Your task to perform on an android device: Open the phone app and click the voicemail tab. Image 0: 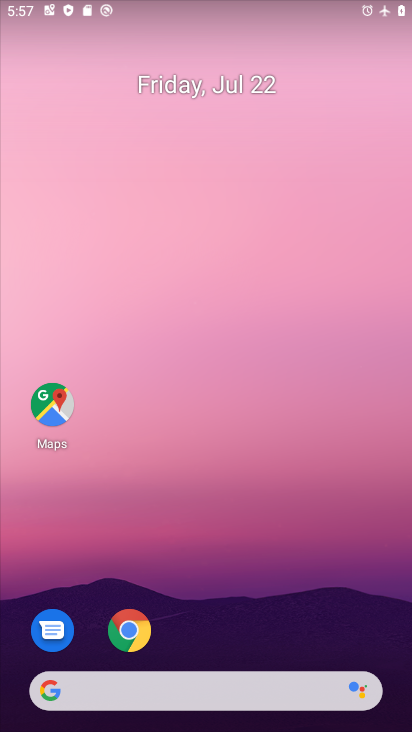
Step 0: drag from (214, 678) to (223, 142)
Your task to perform on an android device: Open the phone app and click the voicemail tab. Image 1: 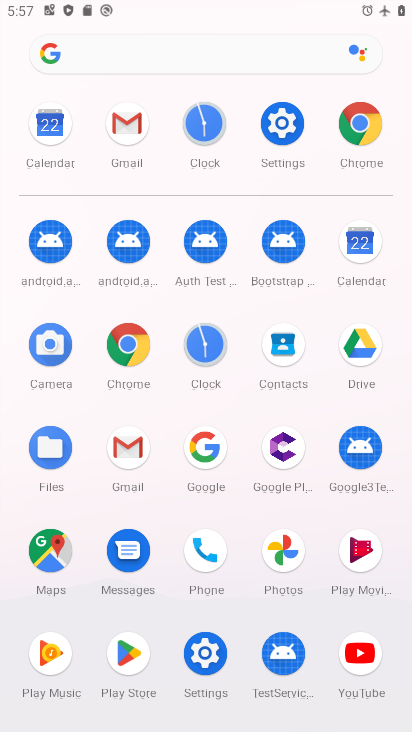
Step 1: click (208, 565)
Your task to perform on an android device: Open the phone app and click the voicemail tab. Image 2: 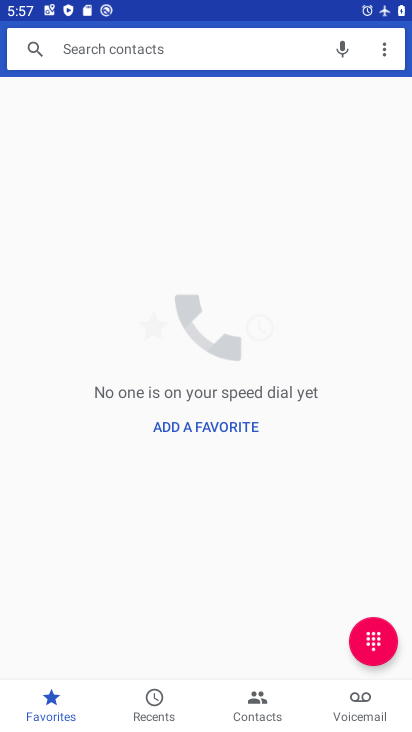
Step 2: click (356, 689)
Your task to perform on an android device: Open the phone app and click the voicemail tab. Image 3: 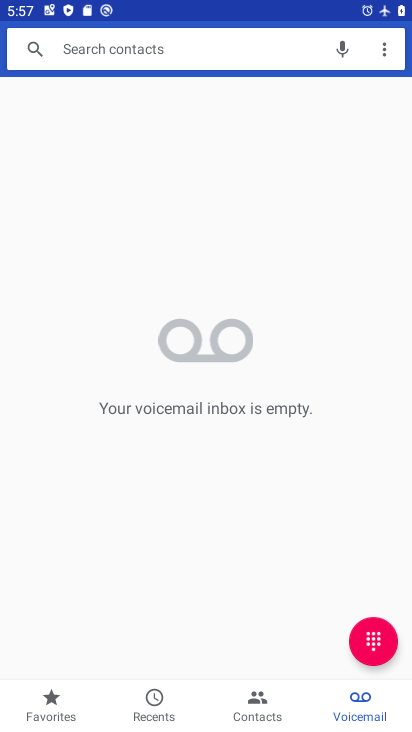
Step 3: task complete